Your task to perform on an android device: Open network settings Image 0: 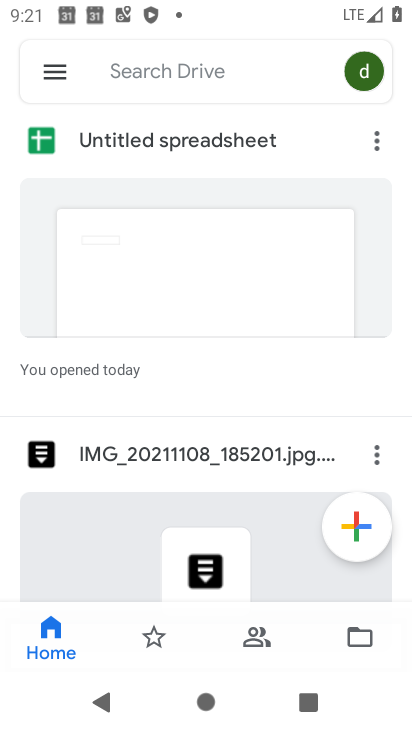
Step 0: press home button
Your task to perform on an android device: Open network settings Image 1: 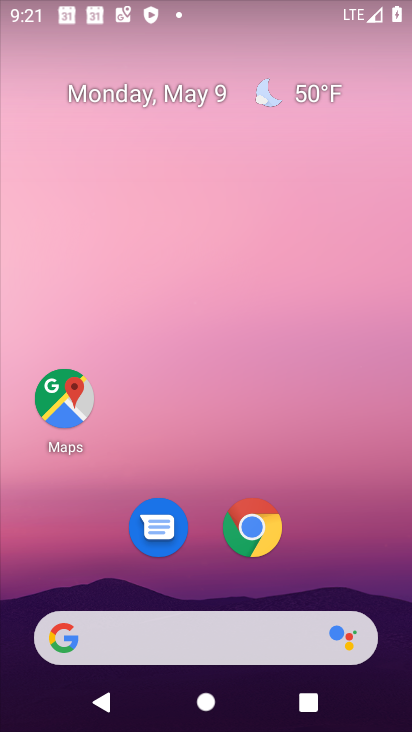
Step 1: drag from (198, 578) to (237, 98)
Your task to perform on an android device: Open network settings Image 2: 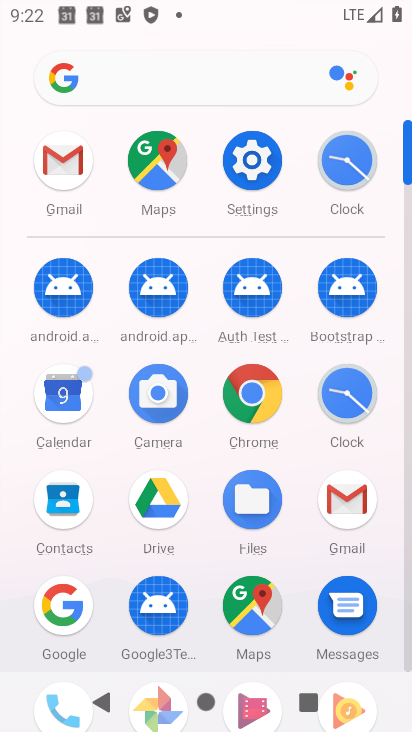
Step 2: click (259, 190)
Your task to perform on an android device: Open network settings Image 3: 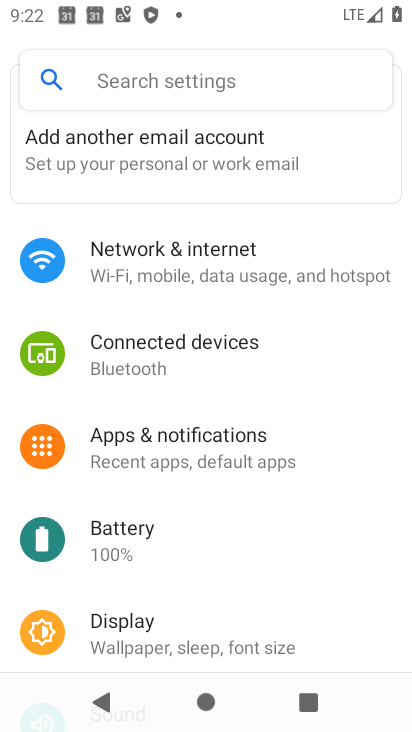
Step 3: click (188, 273)
Your task to perform on an android device: Open network settings Image 4: 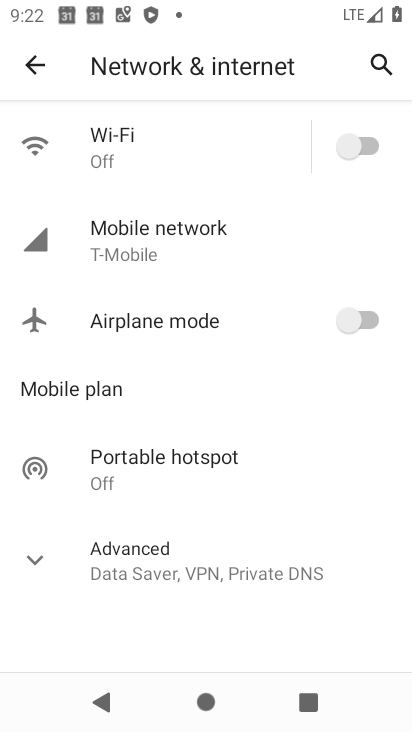
Step 4: click (208, 233)
Your task to perform on an android device: Open network settings Image 5: 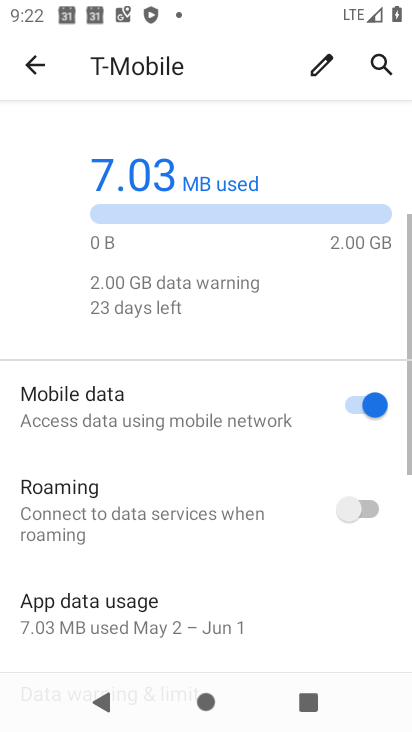
Step 5: task complete